Your task to perform on an android device: check the backup settings in the google photos Image 0: 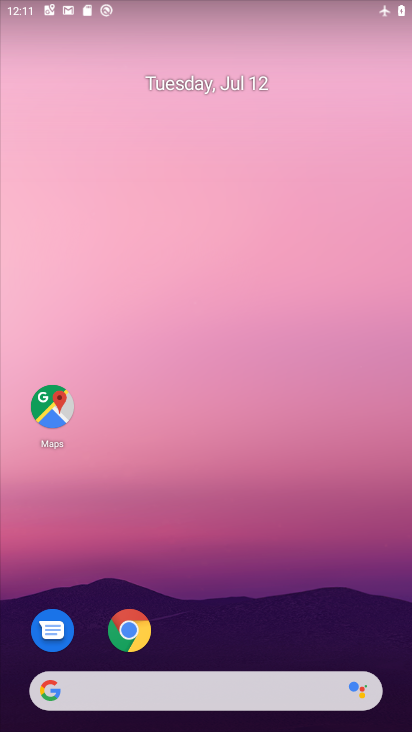
Step 0: drag from (245, 648) to (239, 120)
Your task to perform on an android device: check the backup settings in the google photos Image 1: 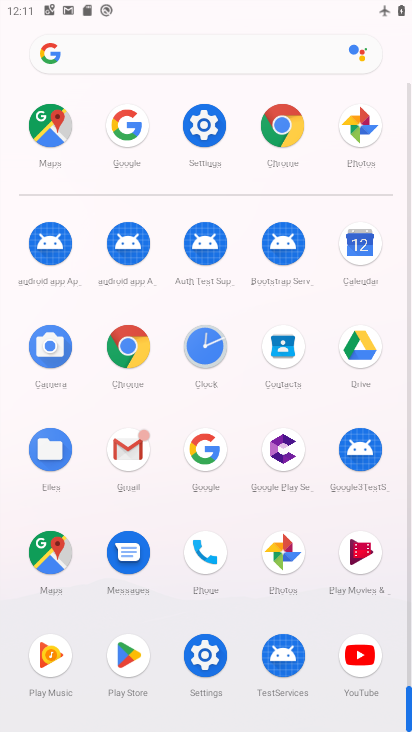
Step 1: click (275, 548)
Your task to perform on an android device: check the backup settings in the google photos Image 2: 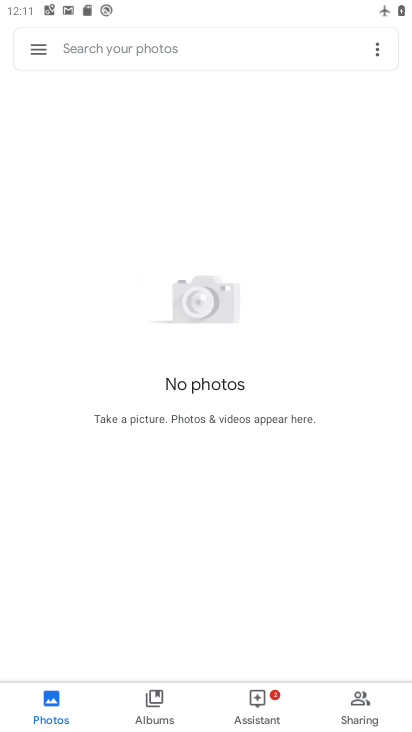
Step 2: click (46, 42)
Your task to perform on an android device: check the backup settings in the google photos Image 3: 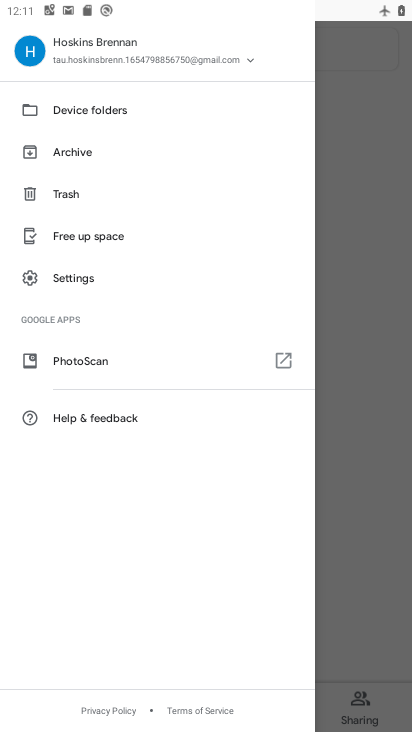
Step 3: click (95, 276)
Your task to perform on an android device: check the backup settings in the google photos Image 4: 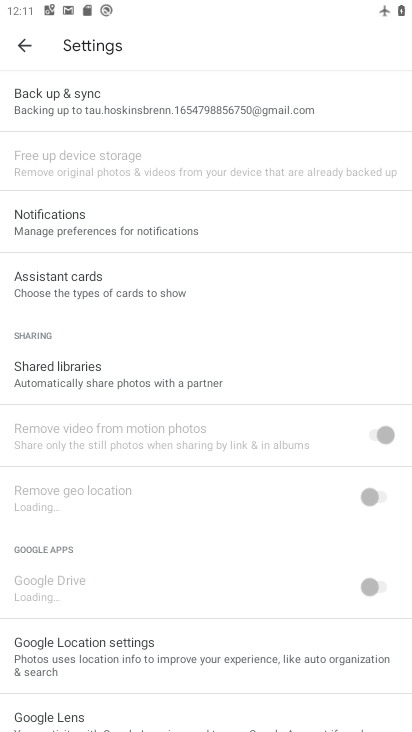
Step 4: click (125, 105)
Your task to perform on an android device: check the backup settings in the google photos Image 5: 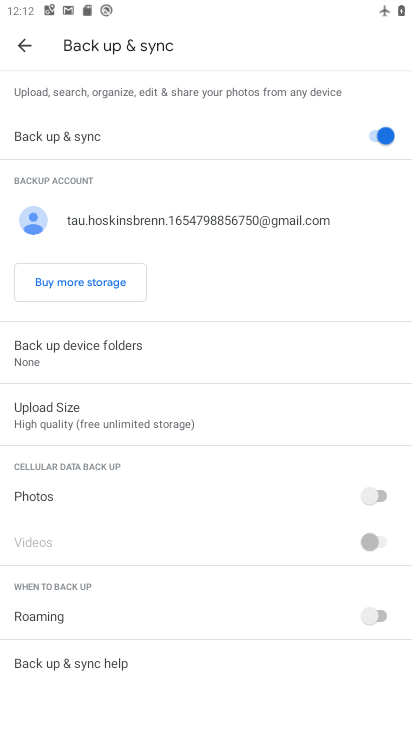
Step 5: task complete